Your task to perform on an android device: Show me popular videos on Youtube Image 0: 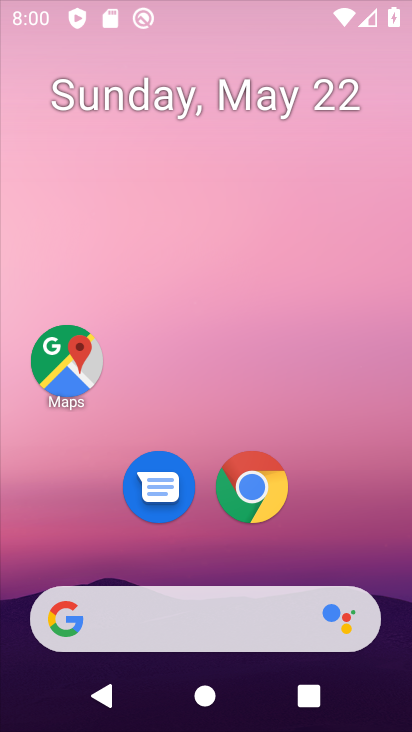
Step 0: click (266, 494)
Your task to perform on an android device: Show me popular videos on Youtube Image 1: 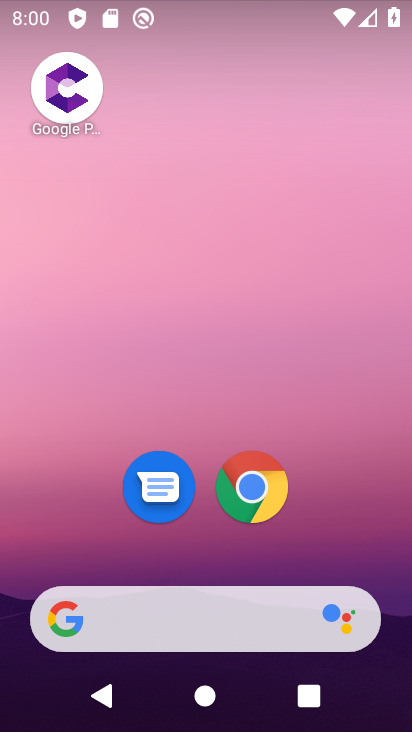
Step 1: drag from (336, 540) to (391, 97)
Your task to perform on an android device: Show me popular videos on Youtube Image 2: 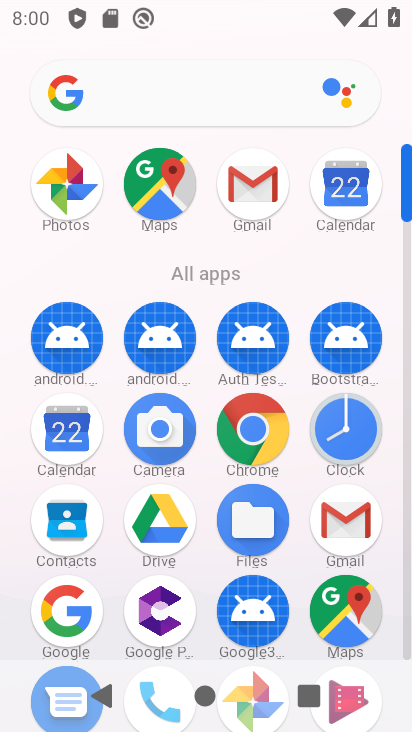
Step 2: drag from (393, 516) to (364, 146)
Your task to perform on an android device: Show me popular videos on Youtube Image 3: 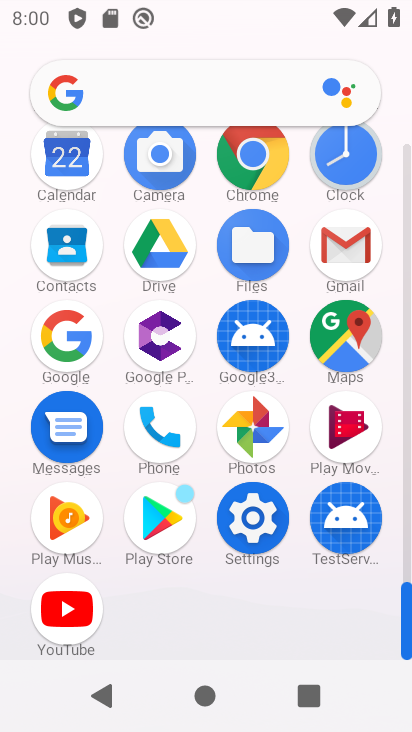
Step 3: click (64, 603)
Your task to perform on an android device: Show me popular videos on Youtube Image 4: 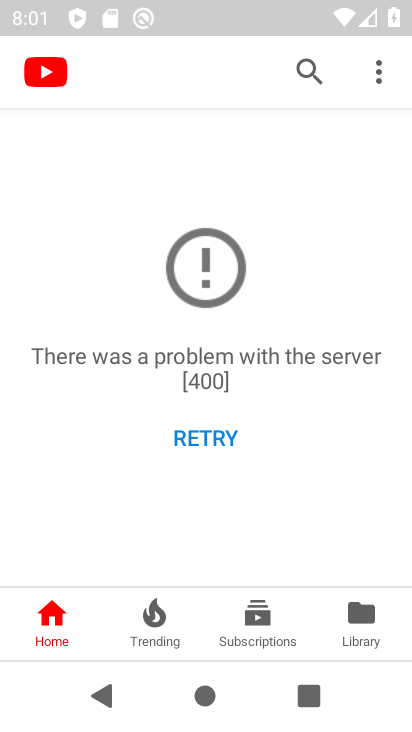
Step 4: click (312, 65)
Your task to perform on an android device: Show me popular videos on Youtube Image 5: 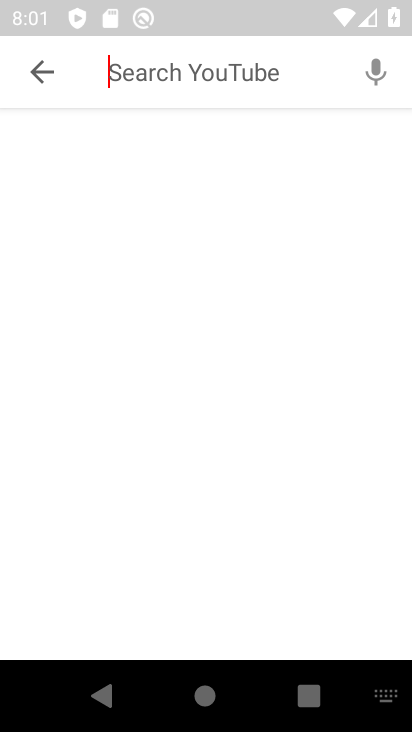
Step 5: type " popular videos"
Your task to perform on an android device: Show me popular videos on Youtube Image 6: 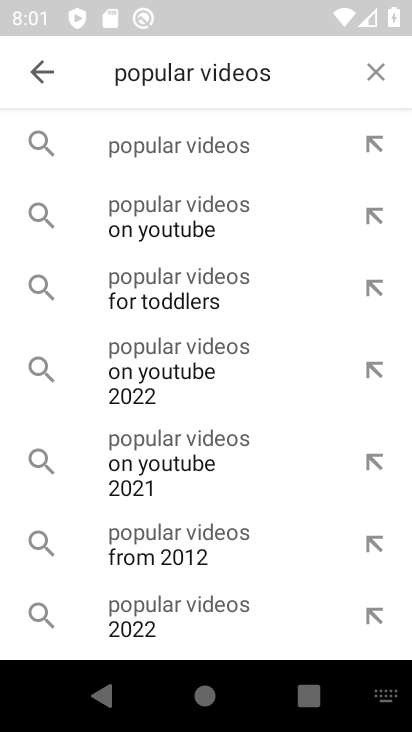
Step 6: press enter
Your task to perform on an android device: Show me popular videos on Youtube Image 7: 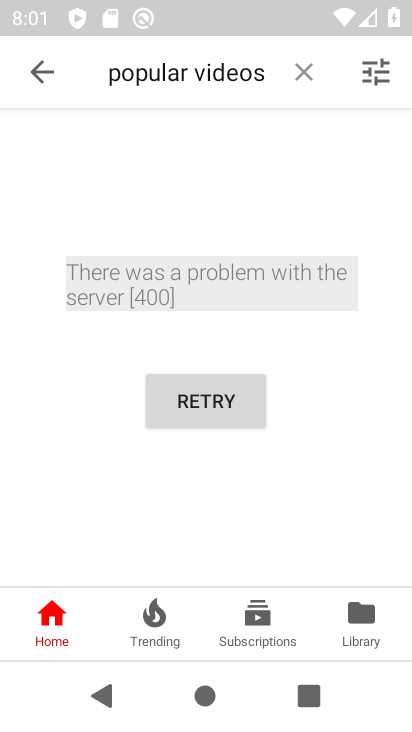
Step 7: click (238, 400)
Your task to perform on an android device: Show me popular videos on Youtube Image 8: 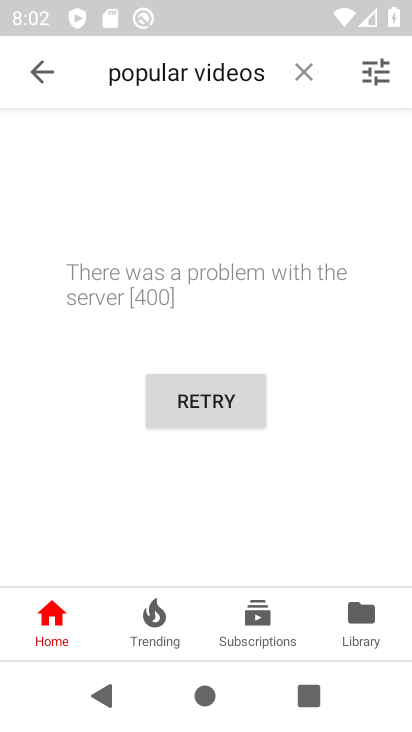
Step 8: task complete